Your task to perform on an android device: turn notification dots on Image 0: 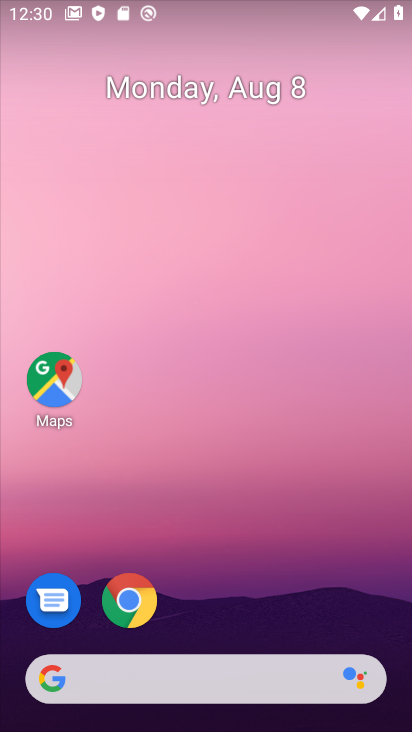
Step 0: press home button
Your task to perform on an android device: turn notification dots on Image 1: 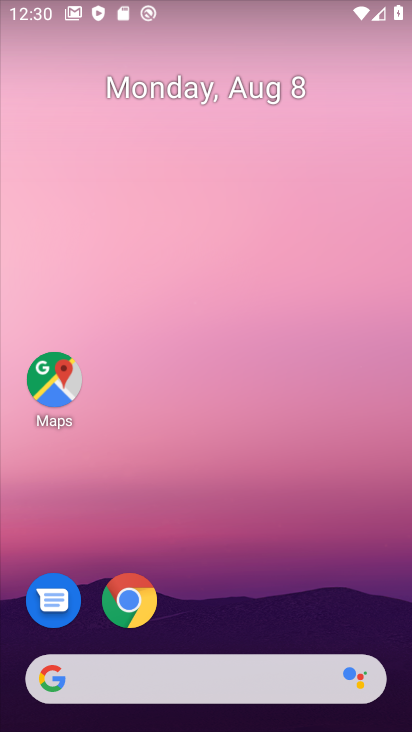
Step 1: drag from (275, 622) to (289, 3)
Your task to perform on an android device: turn notification dots on Image 2: 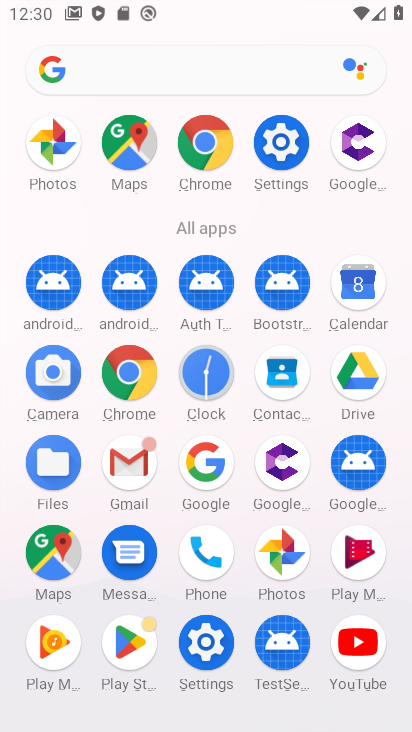
Step 2: click (274, 156)
Your task to perform on an android device: turn notification dots on Image 3: 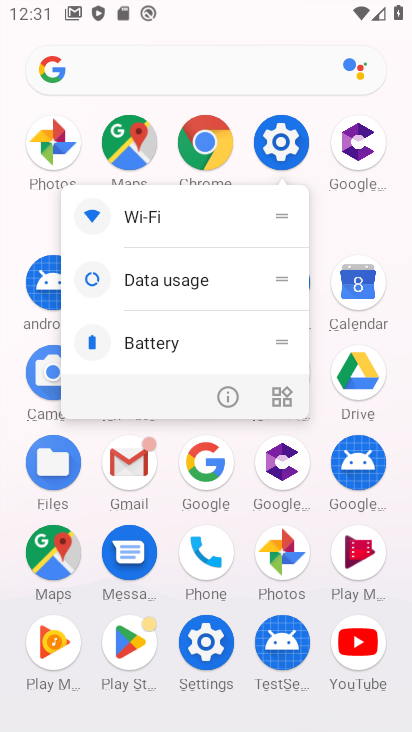
Step 3: click (298, 139)
Your task to perform on an android device: turn notification dots on Image 4: 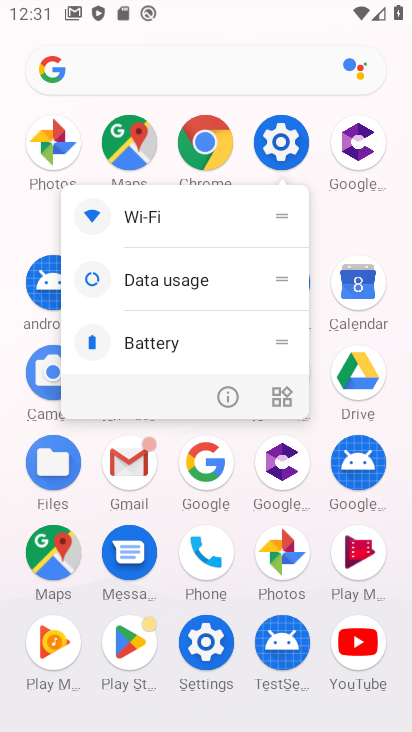
Step 4: click (298, 139)
Your task to perform on an android device: turn notification dots on Image 5: 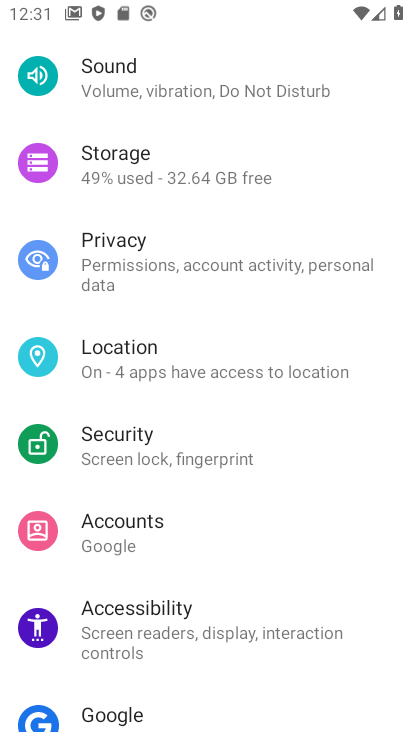
Step 5: drag from (156, 210) to (122, 731)
Your task to perform on an android device: turn notification dots on Image 6: 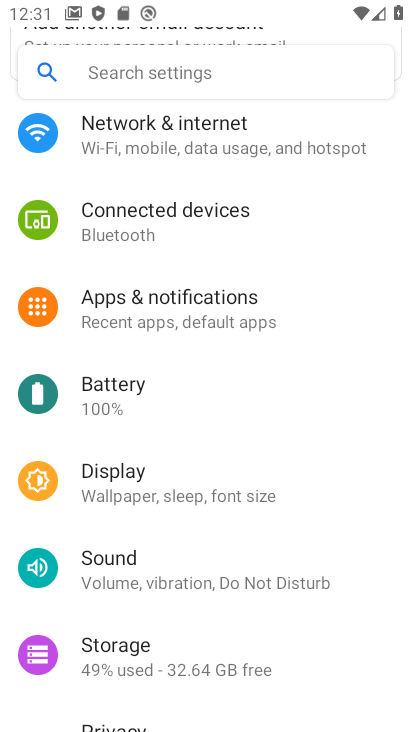
Step 6: click (173, 299)
Your task to perform on an android device: turn notification dots on Image 7: 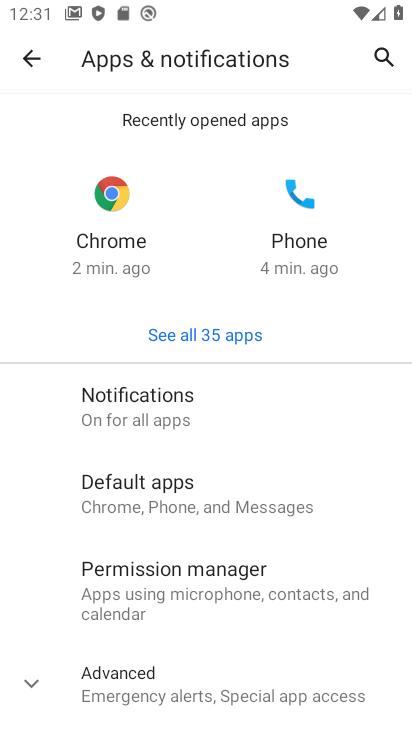
Step 7: click (154, 404)
Your task to perform on an android device: turn notification dots on Image 8: 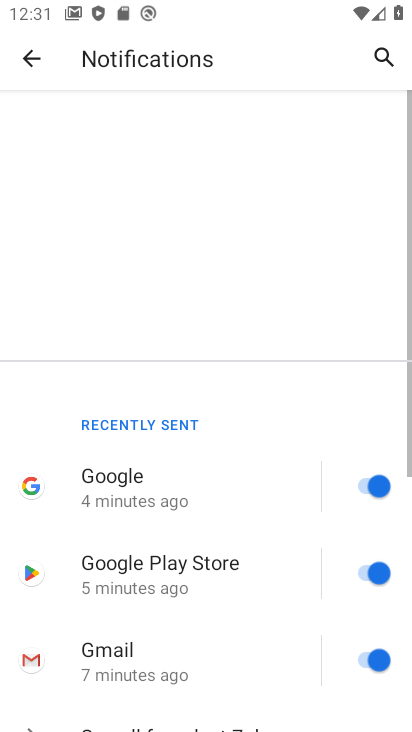
Step 8: drag from (214, 696) to (239, 203)
Your task to perform on an android device: turn notification dots on Image 9: 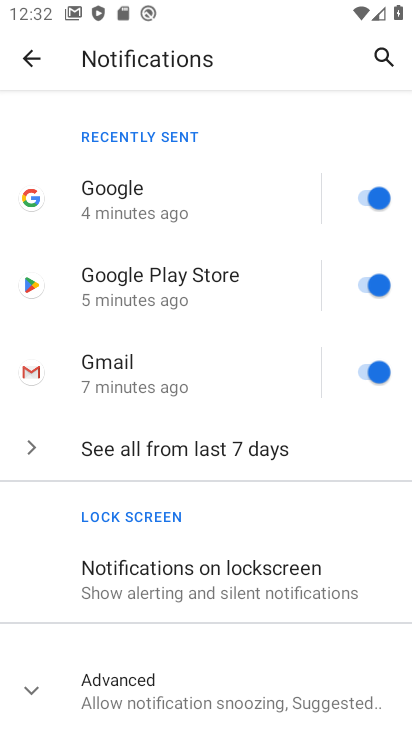
Step 9: click (40, 689)
Your task to perform on an android device: turn notification dots on Image 10: 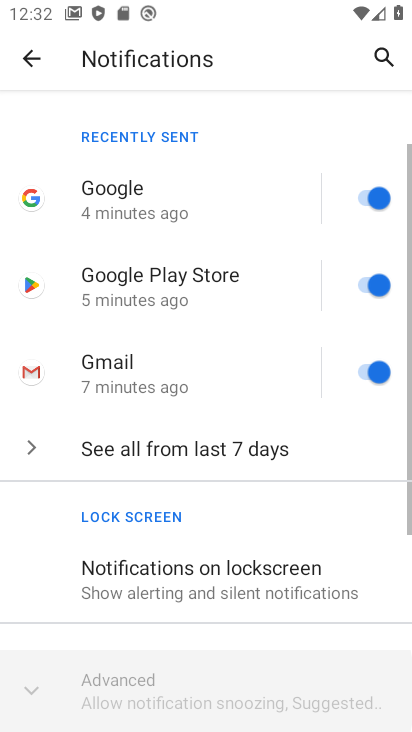
Step 10: task complete